Your task to perform on an android device: Do I have any events this weekend? Image 0: 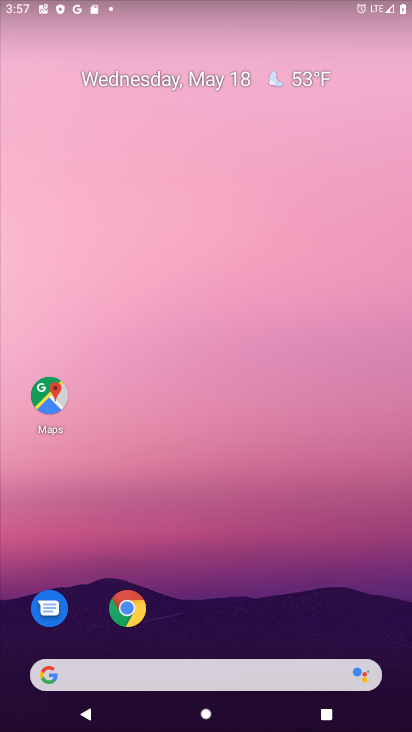
Step 0: drag from (273, 623) to (285, 6)
Your task to perform on an android device: Do I have any events this weekend? Image 1: 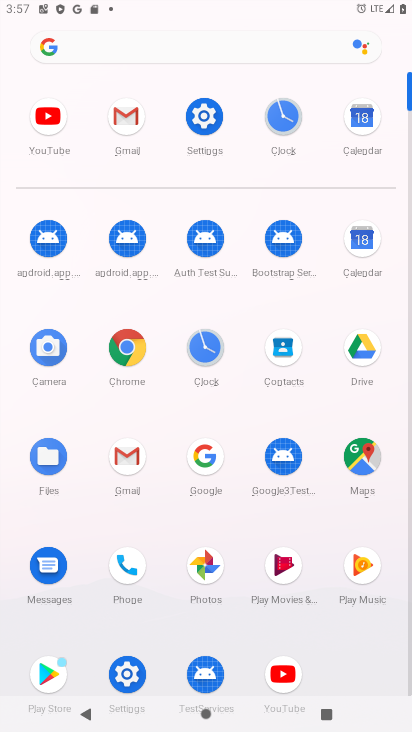
Step 1: click (361, 124)
Your task to perform on an android device: Do I have any events this weekend? Image 2: 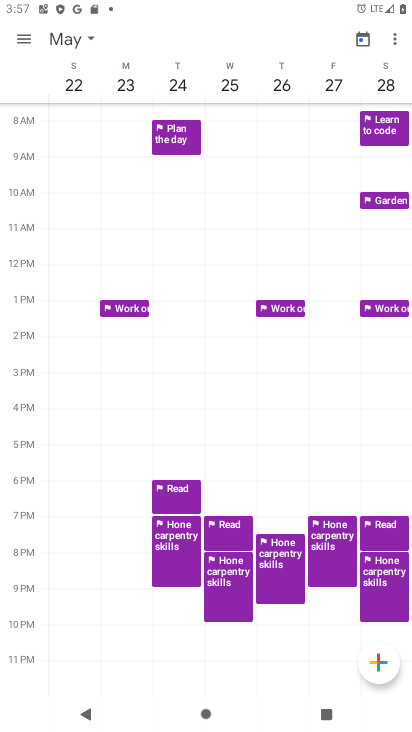
Step 2: task complete